Your task to perform on an android device: change text size in settings app Image 0: 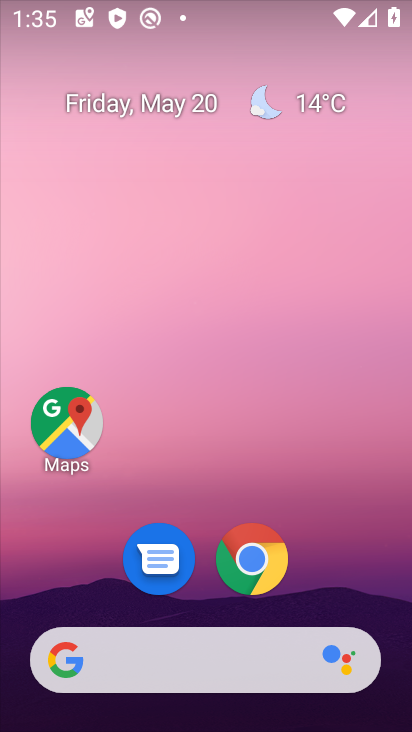
Step 0: drag from (384, 600) to (224, 211)
Your task to perform on an android device: change text size in settings app Image 1: 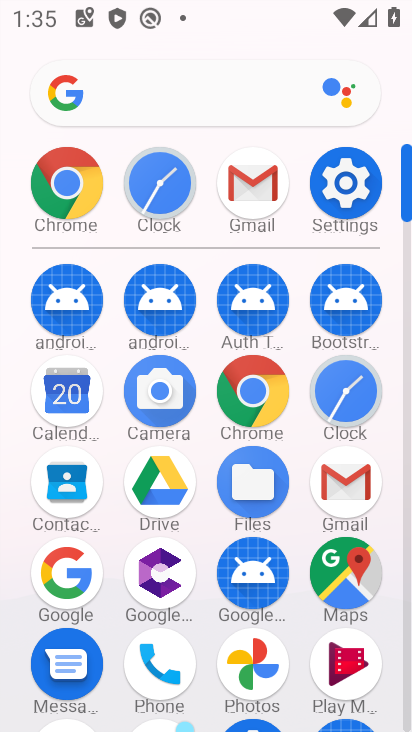
Step 1: click (344, 206)
Your task to perform on an android device: change text size in settings app Image 2: 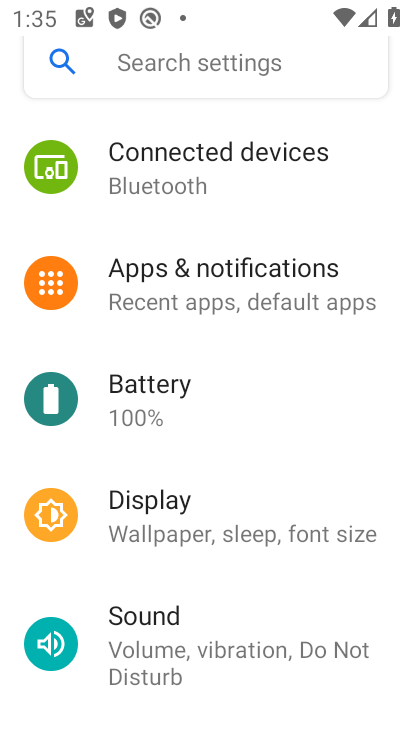
Step 2: click (242, 483)
Your task to perform on an android device: change text size in settings app Image 3: 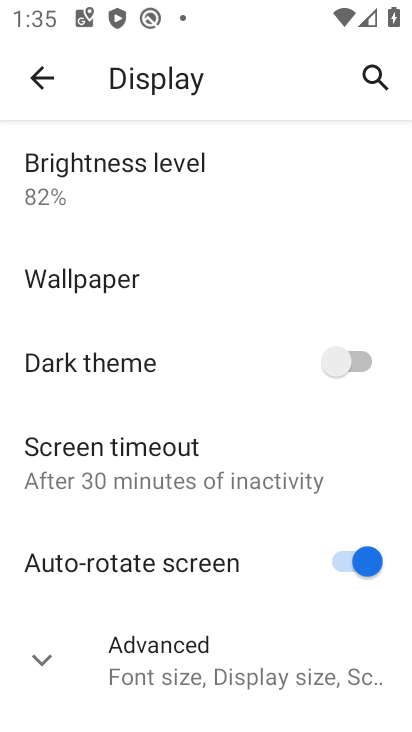
Step 3: click (261, 667)
Your task to perform on an android device: change text size in settings app Image 4: 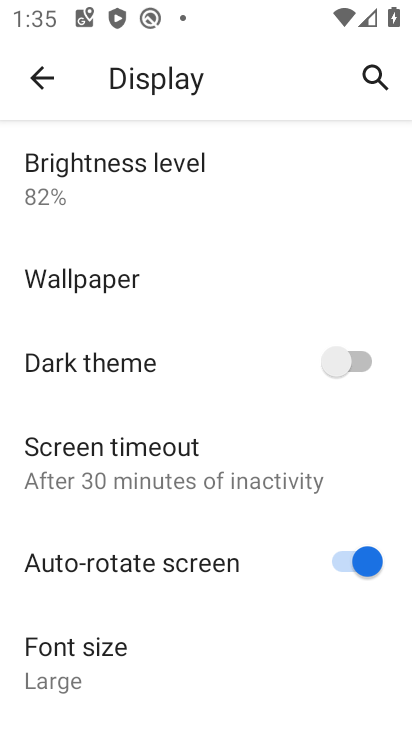
Step 4: click (235, 658)
Your task to perform on an android device: change text size in settings app Image 5: 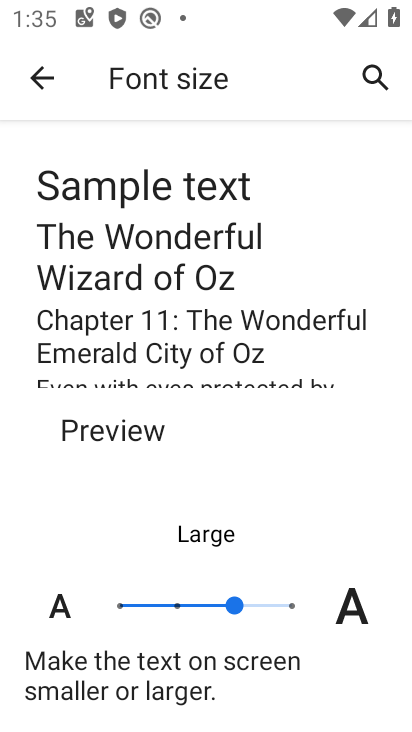
Step 5: click (170, 593)
Your task to perform on an android device: change text size in settings app Image 6: 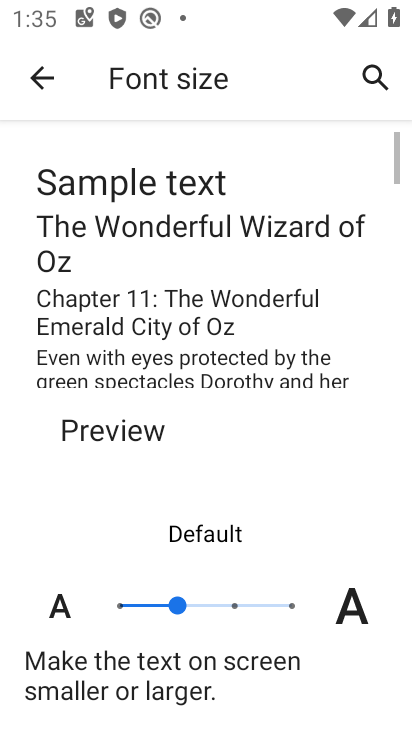
Step 6: task complete